Your task to perform on an android device: Open Maps and search for coffee Image 0: 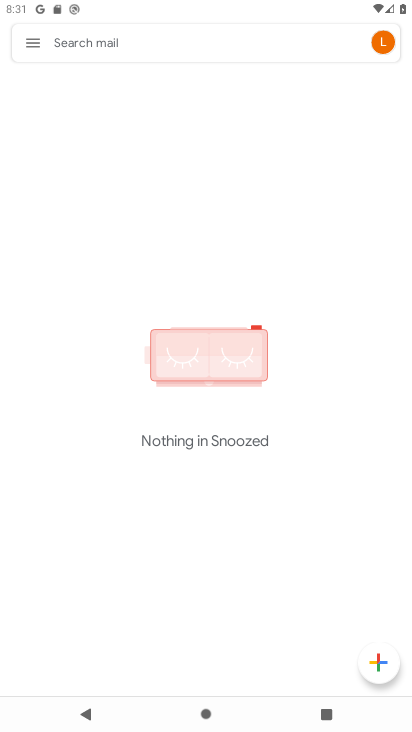
Step 0: press home button
Your task to perform on an android device: Open Maps and search for coffee Image 1: 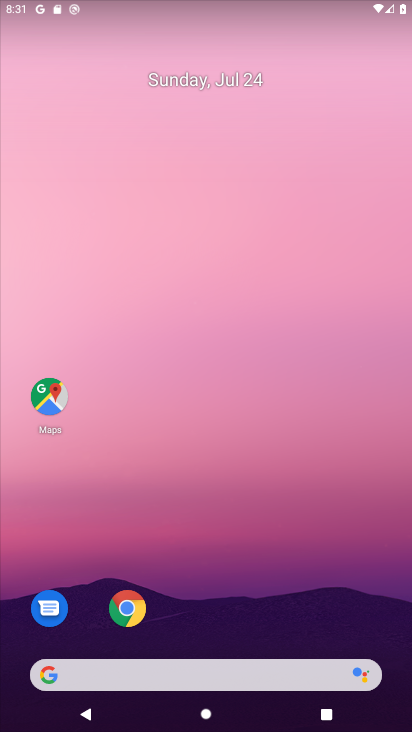
Step 1: click (60, 398)
Your task to perform on an android device: Open Maps and search for coffee Image 2: 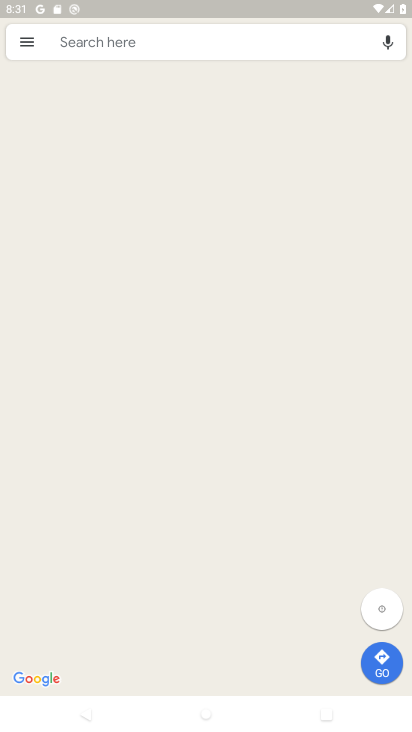
Step 2: click (341, 43)
Your task to perform on an android device: Open Maps and search for coffee Image 3: 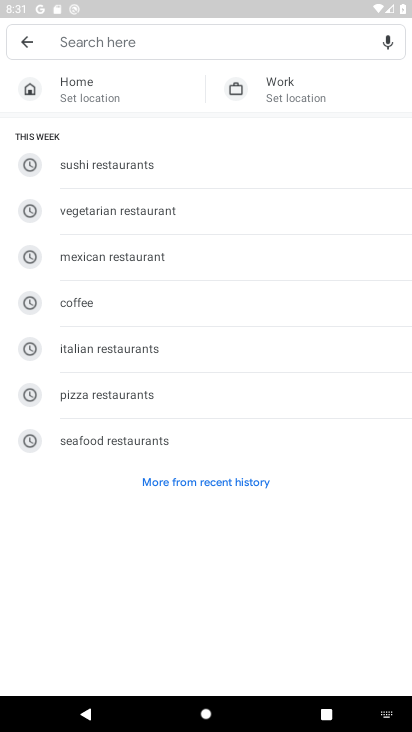
Step 3: click (168, 308)
Your task to perform on an android device: Open Maps and search for coffee Image 4: 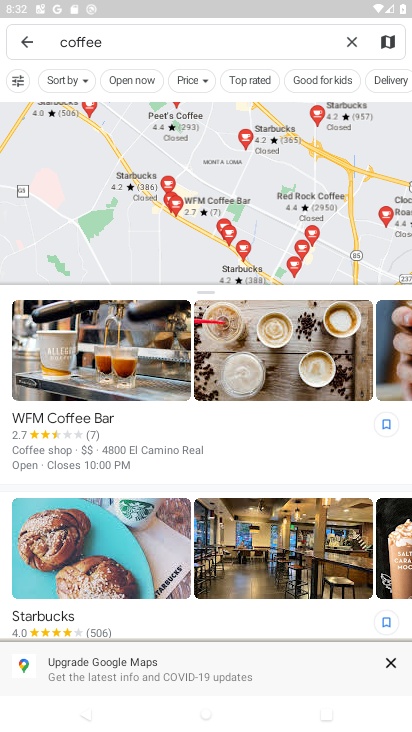
Step 4: task complete